Your task to perform on an android device: Is it going to rain tomorrow? Image 0: 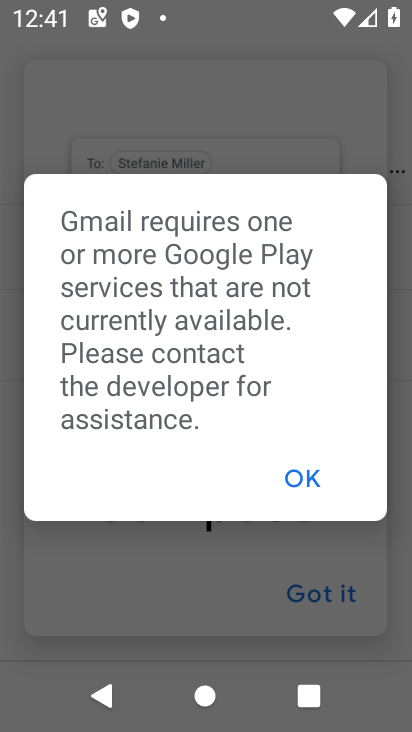
Step 0: press home button
Your task to perform on an android device: Is it going to rain tomorrow? Image 1: 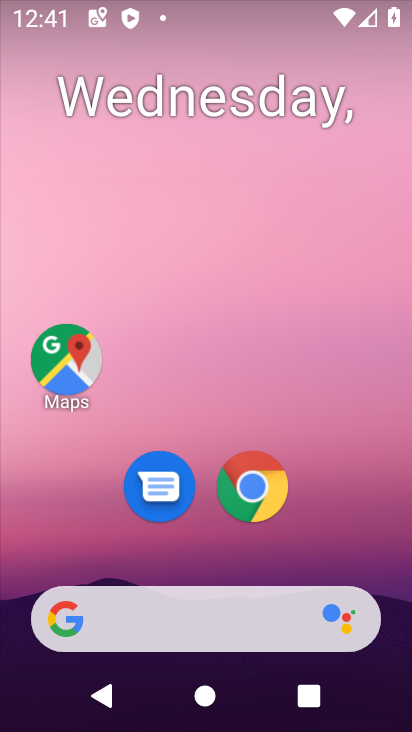
Step 1: click (247, 610)
Your task to perform on an android device: Is it going to rain tomorrow? Image 2: 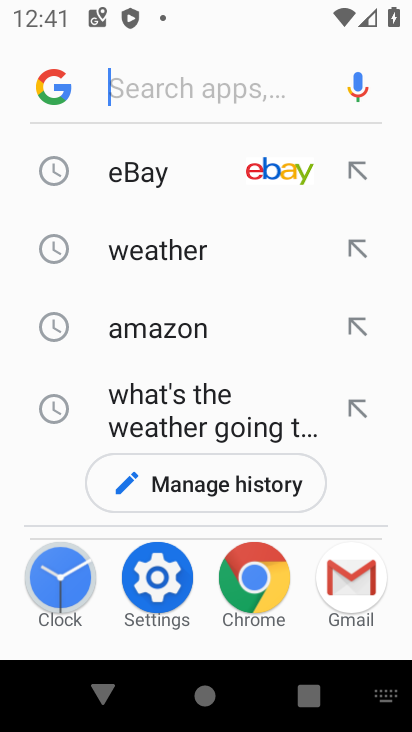
Step 2: click (223, 254)
Your task to perform on an android device: Is it going to rain tomorrow? Image 3: 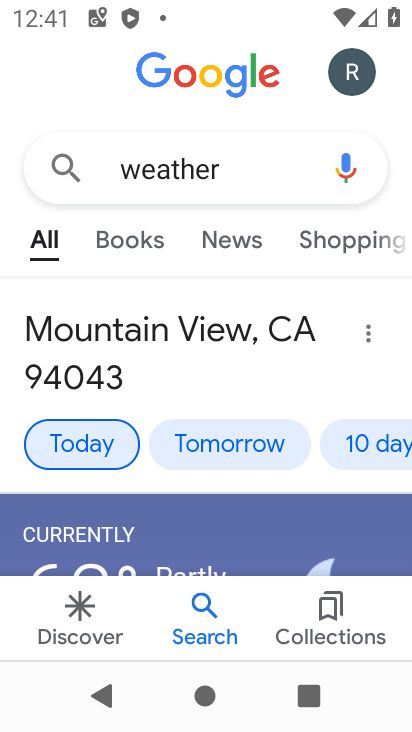
Step 3: click (247, 430)
Your task to perform on an android device: Is it going to rain tomorrow? Image 4: 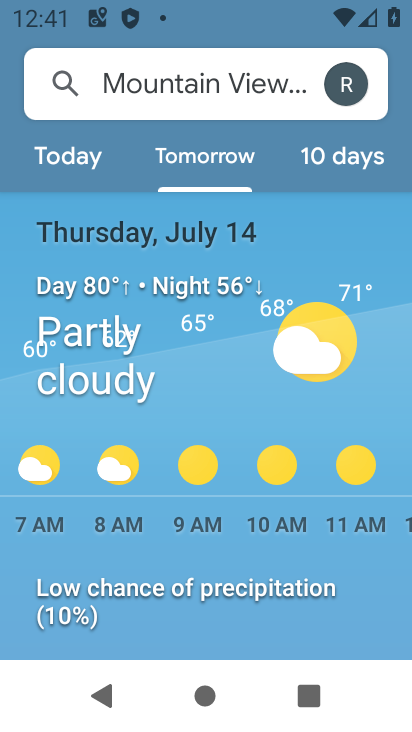
Step 4: task complete